Your task to perform on an android device: Open settings Image 0: 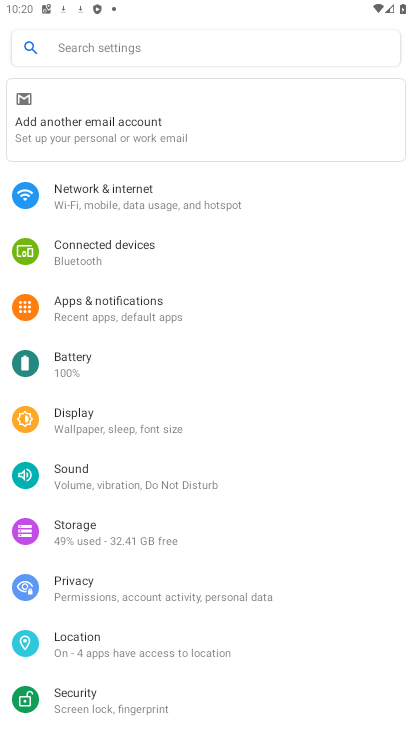
Step 0: press home button
Your task to perform on an android device: Open settings Image 1: 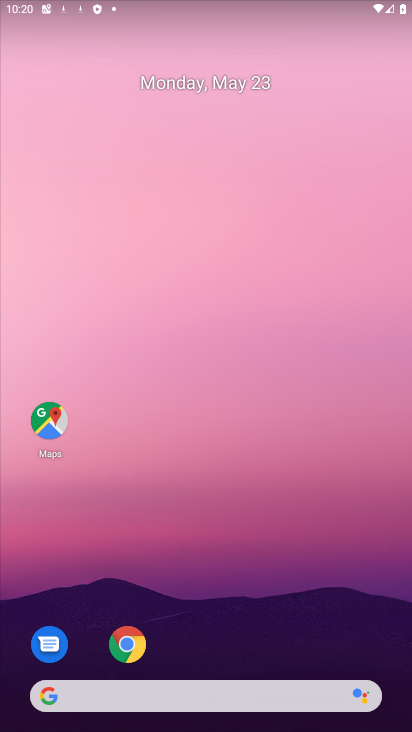
Step 1: drag from (258, 717) to (280, 173)
Your task to perform on an android device: Open settings Image 2: 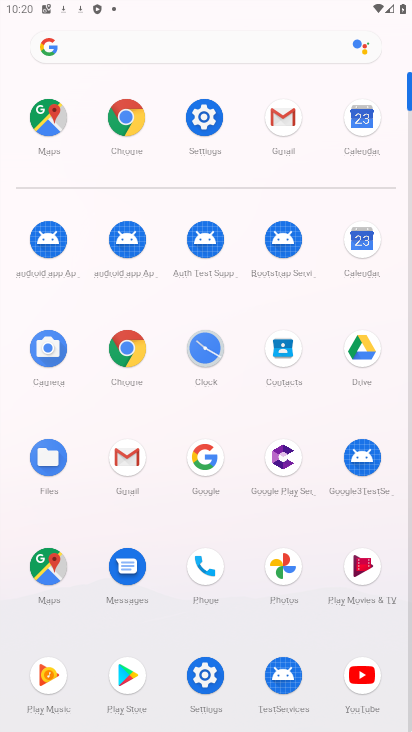
Step 2: click (200, 676)
Your task to perform on an android device: Open settings Image 3: 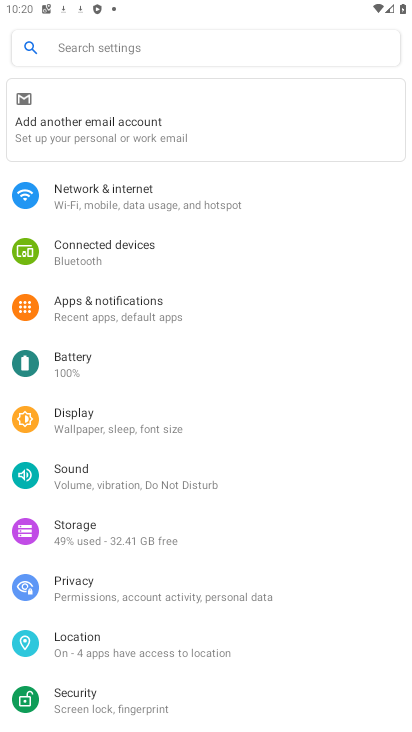
Step 3: task complete